Your task to perform on an android device: change the clock display to digital Image 0: 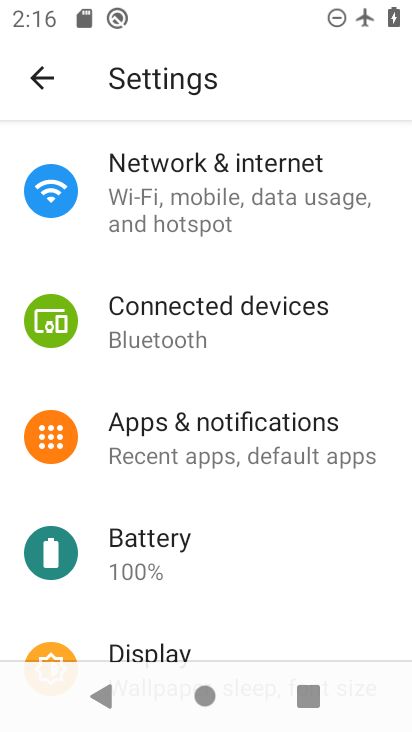
Step 0: press home button
Your task to perform on an android device: change the clock display to digital Image 1: 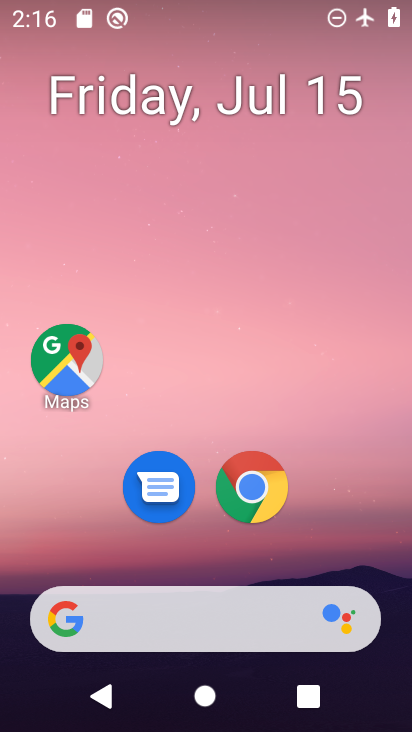
Step 1: drag from (138, 573) to (334, 111)
Your task to perform on an android device: change the clock display to digital Image 2: 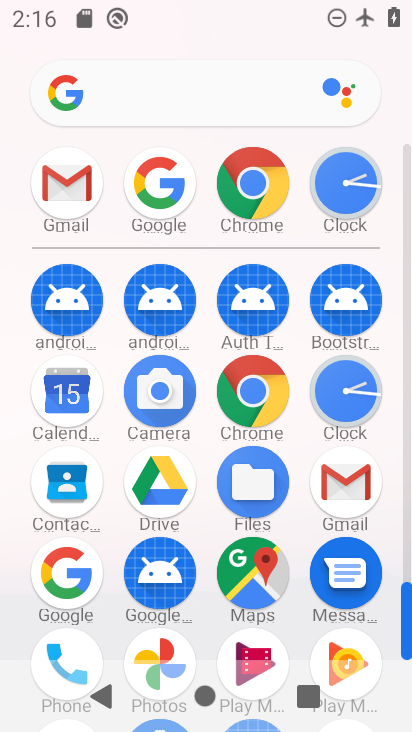
Step 2: click (351, 217)
Your task to perform on an android device: change the clock display to digital Image 3: 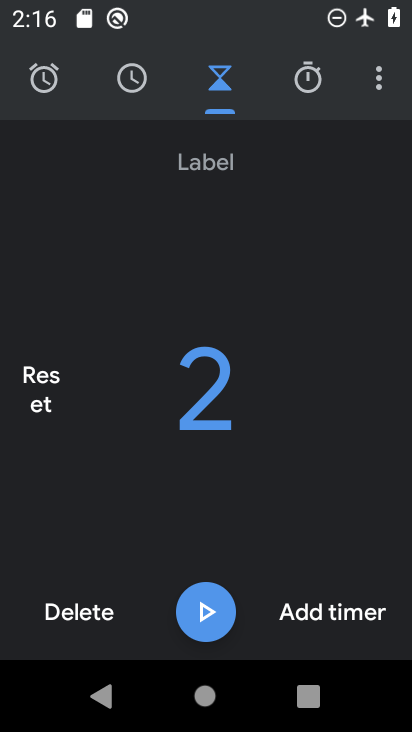
Step 3: click (371, 76)
Your task to perform on an android device: change the clock display to digital Image 4: 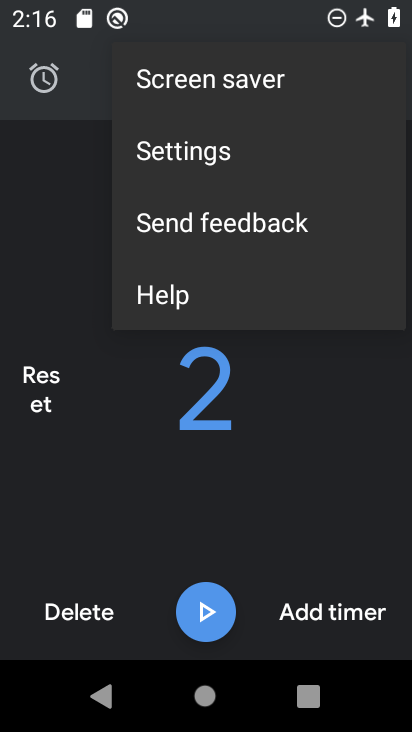
Step 4: click (200, 165)
Your task to perform on an android device: change the clock display to digital Image 5: 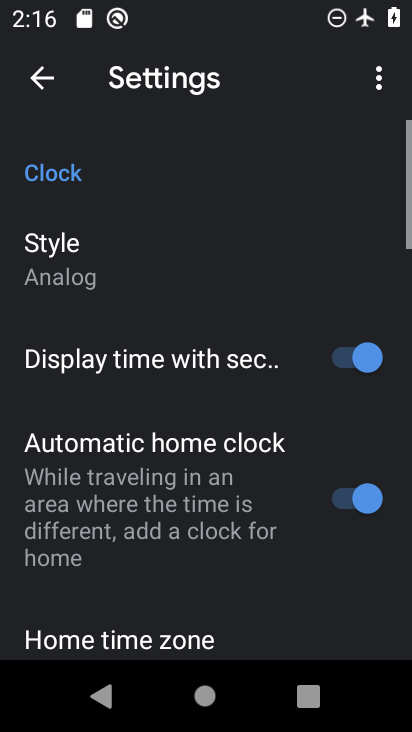
Step 5: click (200, 165)
Your task to perform on an android device: change the clock display to digital Image 6: 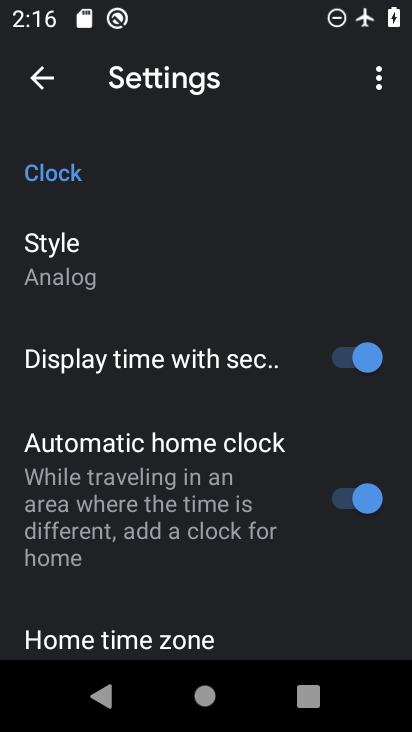
Step 6: click (155, 234)
Your task to perform on an android device: change the clock display to digital Image 7: 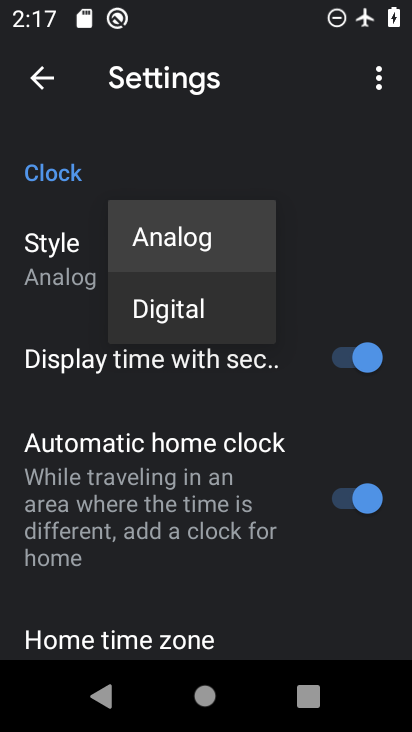
Step 7: click (214, 293)
Your task to perform on an android device: change the clock display to digital Image 8: 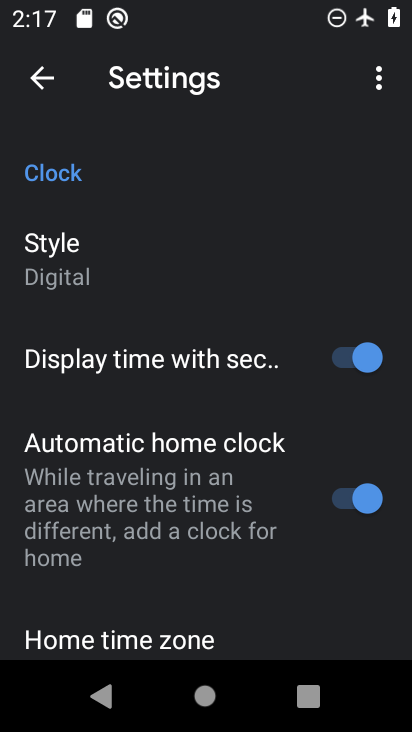
Step 8: task complete